Your task to perform on an android device: Do I have any events this weekend? Image 0: 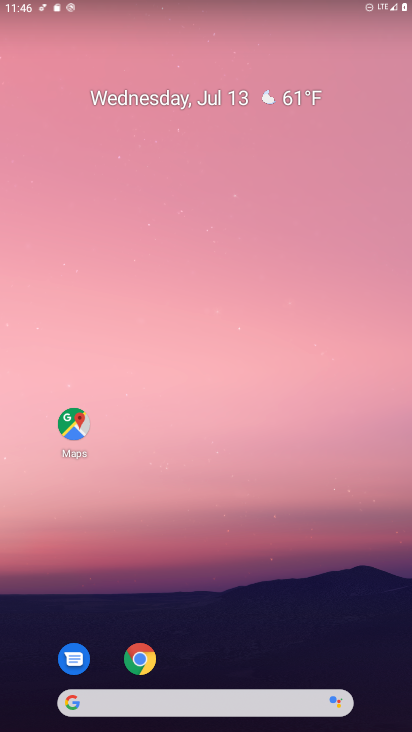
Step 0: drag from (375, 640) to (309, 145)
Your task to perform on an android device: Do I have any events this weekend? Image 1: 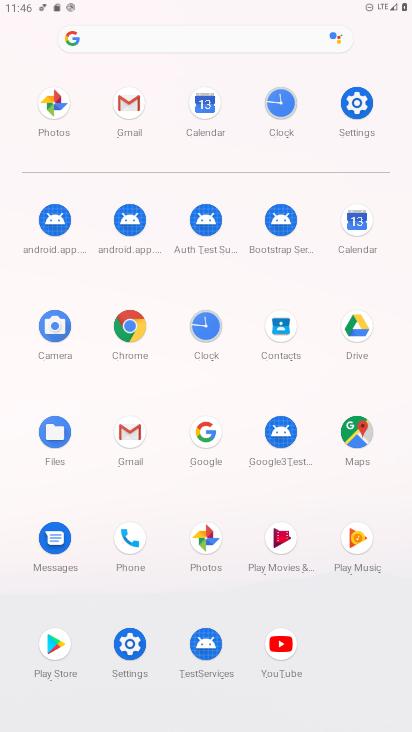
Step 1: click (356, 222)
Your task to perform on an android device: Do I have any events this weekend? Image 2: 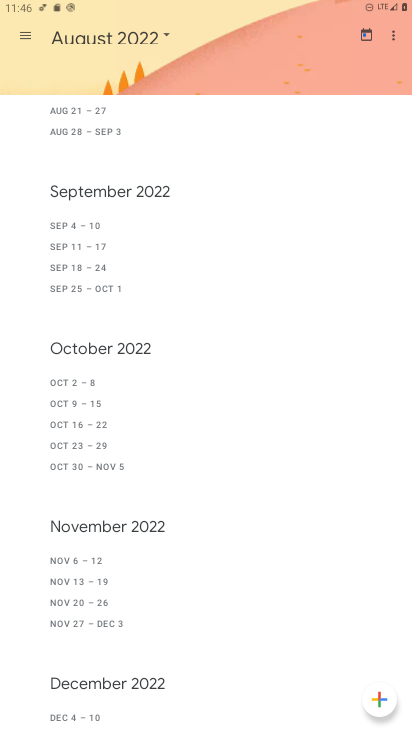
Step 2: click (23, 36)
Your task to perform on an android device: Do I have any events this weekend? Image 3: 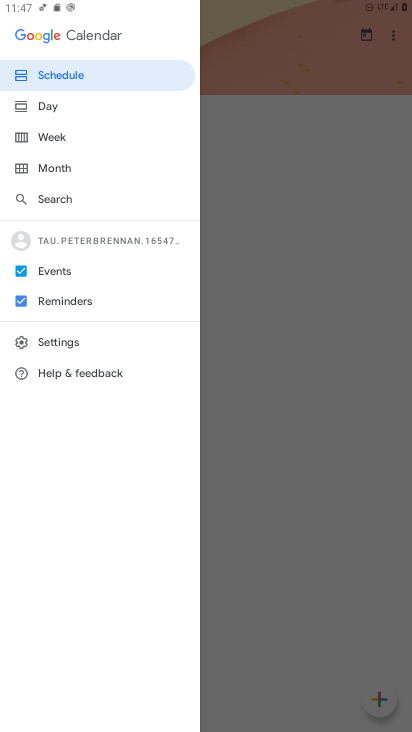
Step 3: click (45, 132)
Your task to perform on an android device: Do I have any events this weekend? Image 4: 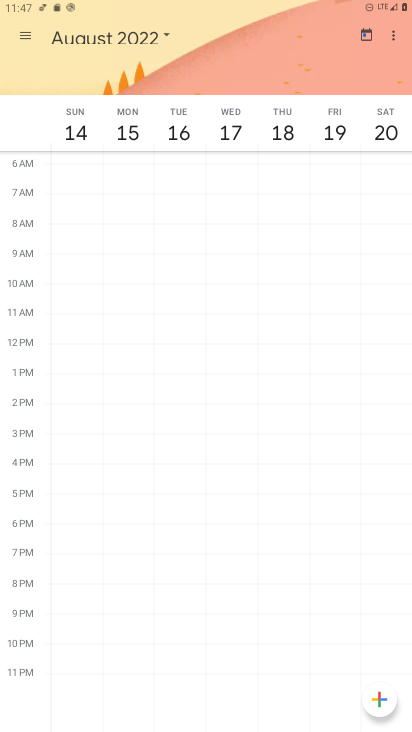
Step 4: click (161, 36)
Your task to perform on an android device: Do I have any events this weekend? Image 5: 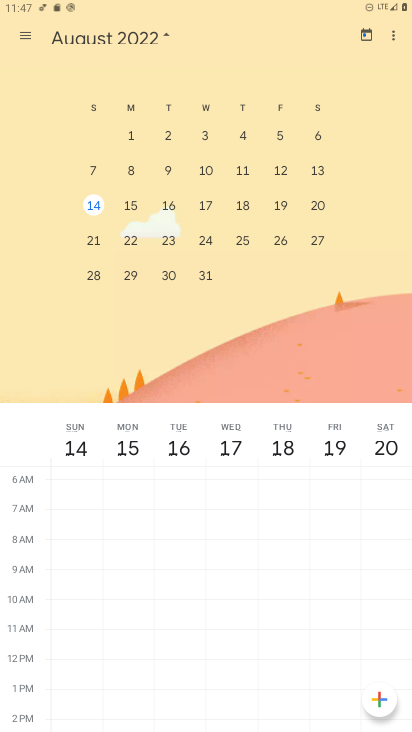
Step 5: drag from (87, 238) to (385, 231)
Your task to perform on an android device: Do I have any events this weekend? Image 6: 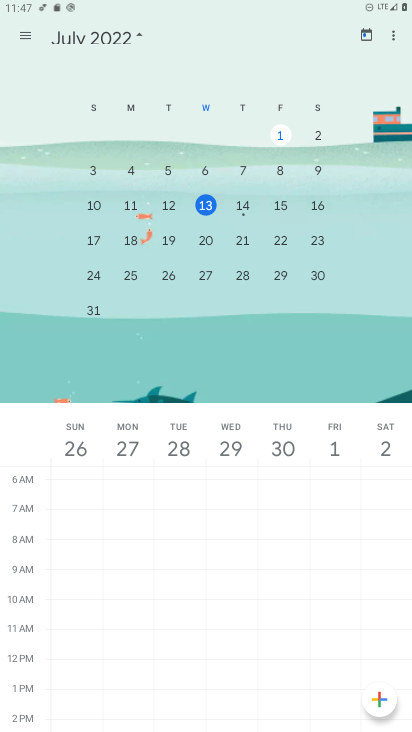
Step 6: click (93, 201)
Your task to perform on an android device: Do I have any events this weekend? Image 7: 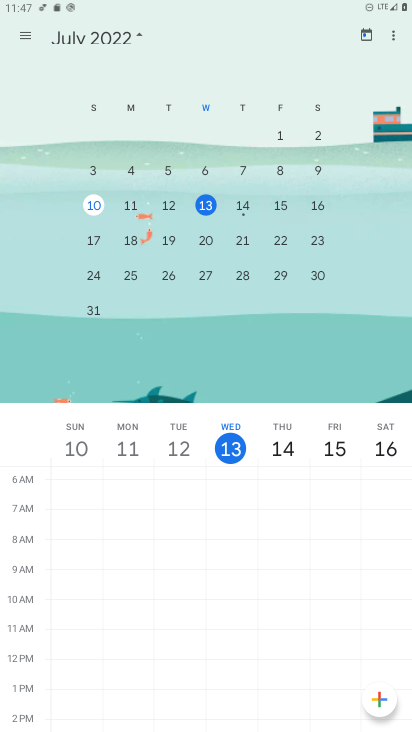
Step 7: task complete